Your task to perform on an android device: Search for razer naga on newegg, select the first entry, and add it to the cart. Image 0: 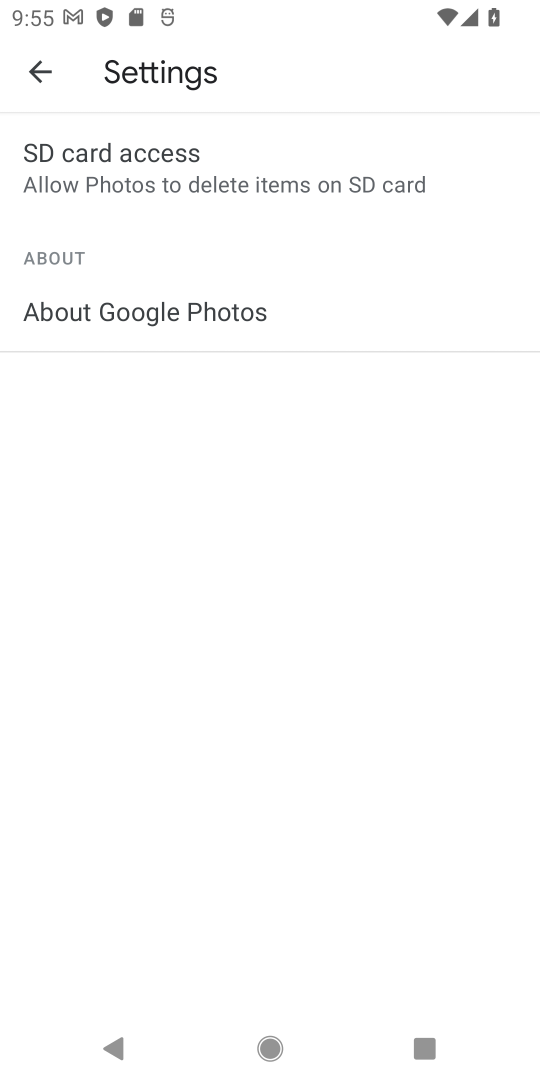
Step 0: press home button
Your task to perform on an android device: Search for razer naga on newegg, select the first entry, and add it to the cart. Image 1: 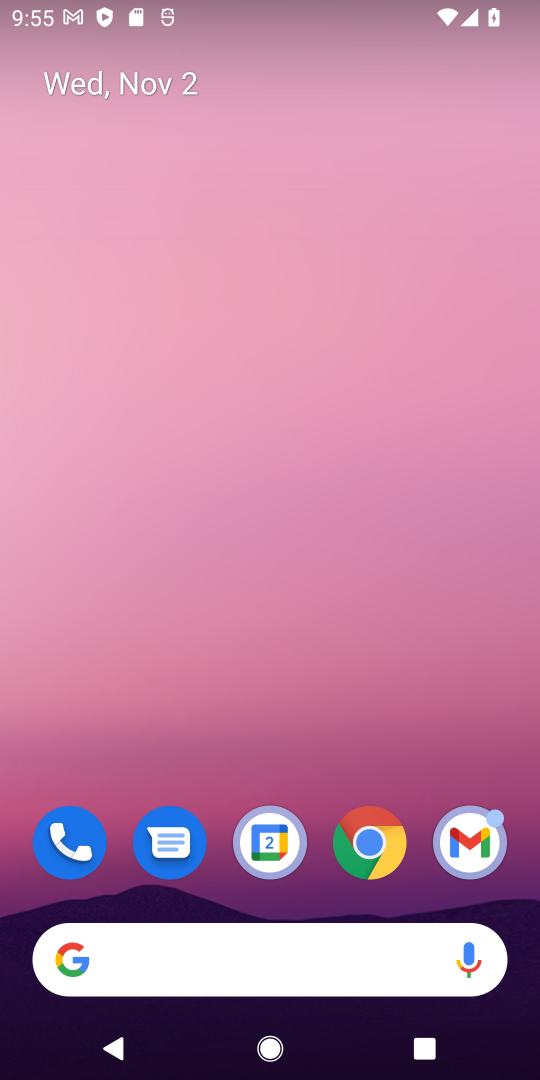
Step 1: drag from (265, 712) to (272, 238)
Your task to perform on an android device: Search for razer naga on newegg, select the first entry, and add it to the cart. Image 2: 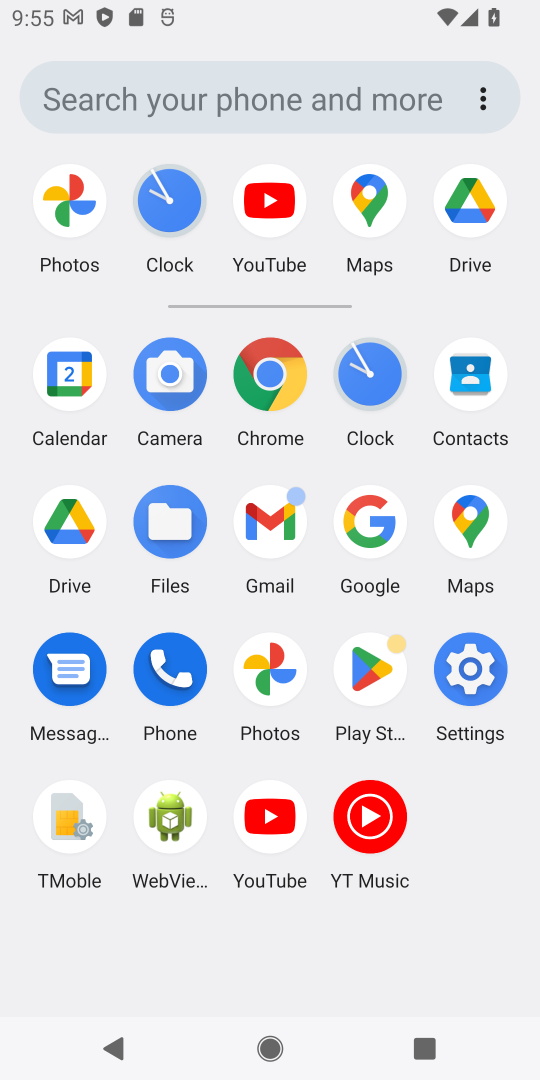
Step 2: click (382, 517)
Your task to perform on an android device: Search for razer naga on newegg, select the first entry, and add it to the cart. Image 3: 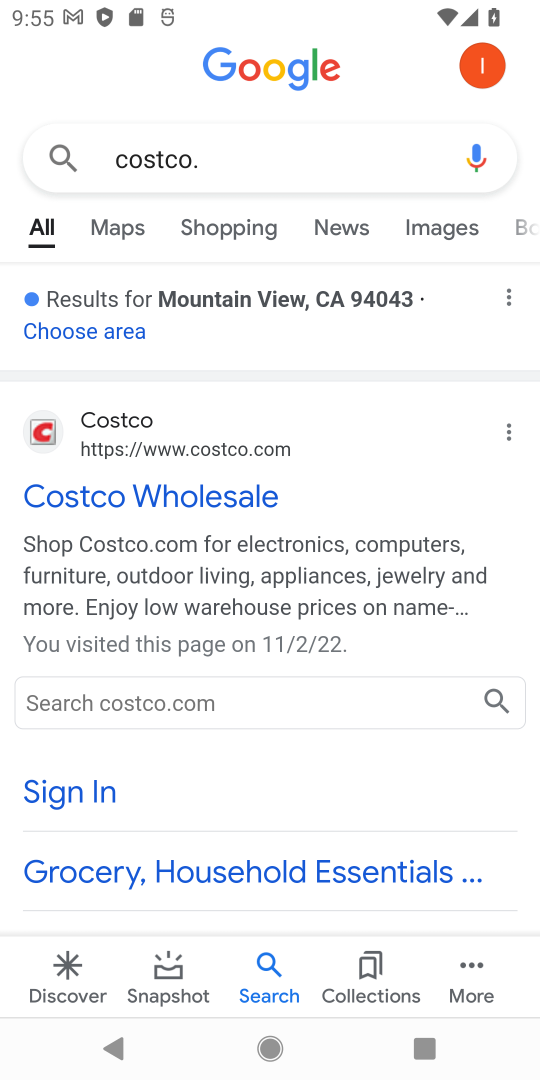
Step 3: click (268, 147)
Your task to perform on an android device: Search for razer naga on newegg, select the first entry, and add it to the cart. Image 4: 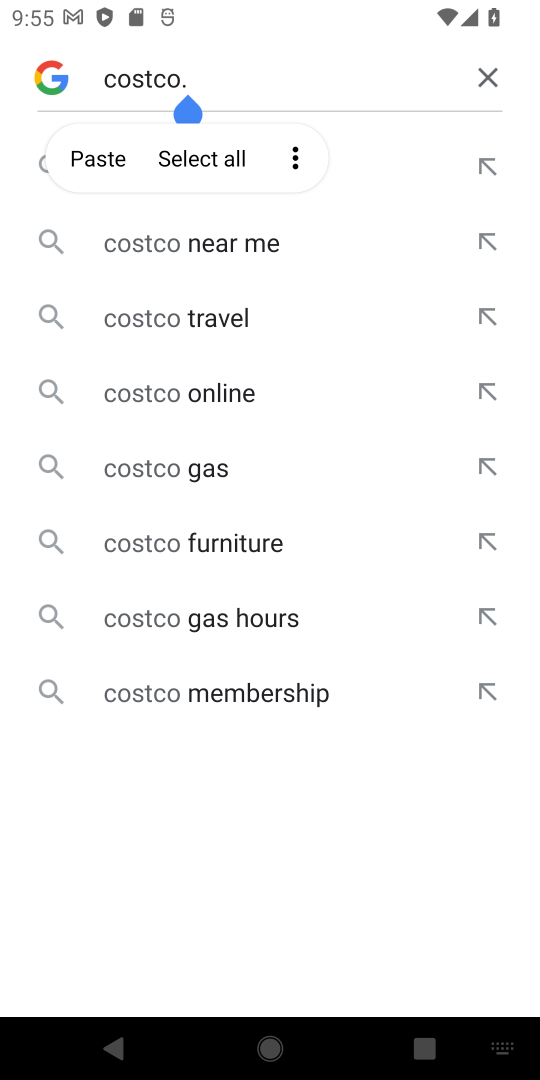
Step 4: click (488, 91)
Your task to perform on an android device: Search for razer naga on newegg, select the first entry, and add it to the cart. Image 5: 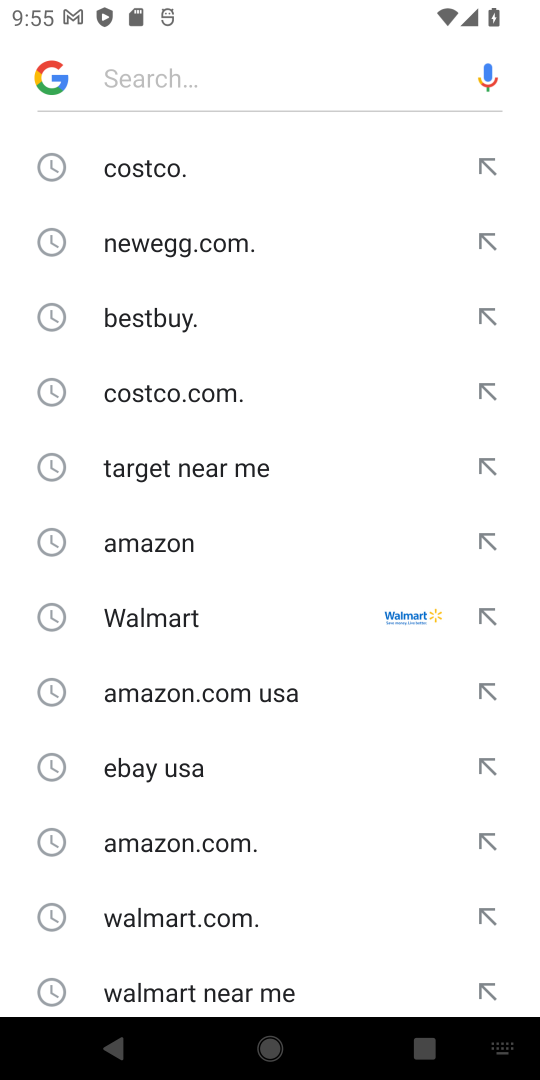
Step 5: click (184, 245)
Your task to perform on an android device: Search for razer naga on newegg, select the first entry, and add it to the cart. Image 6: 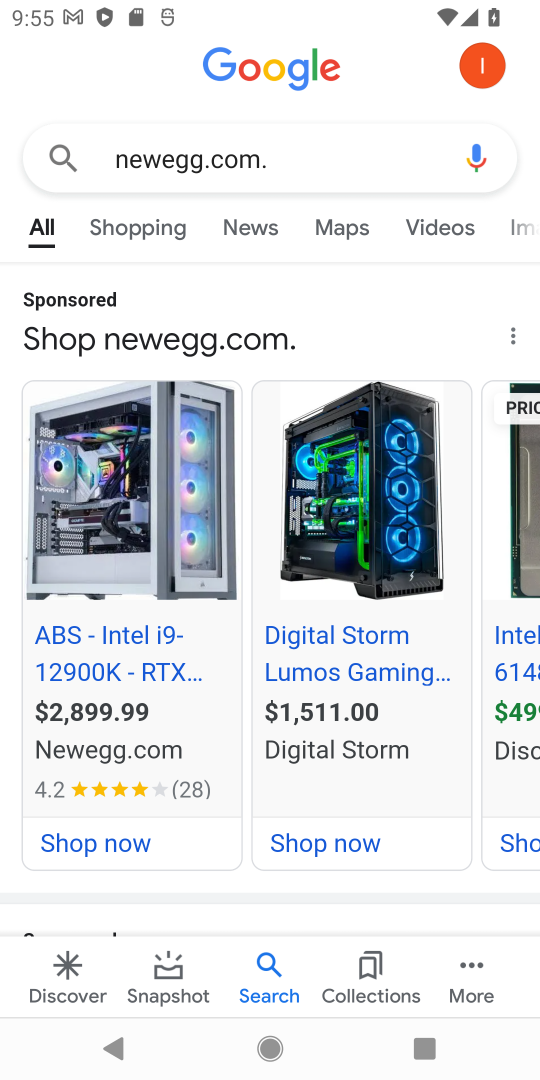
Step 6: drag from (159, 588) to (199, 304)
Your task to perform on an android device: Search for razer naga on newegg, select the first entry, and add it to the cart. Image 7: 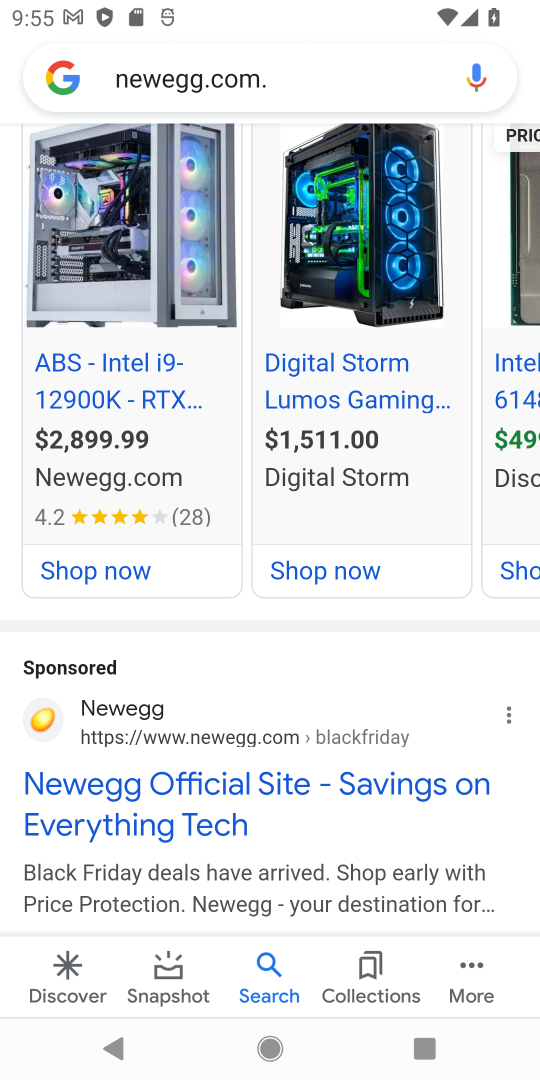
Step 7: click (44, 730)
Your task to perform on an android device: Search for razer naga on newegg, select the first entry, and add it to the cart. Image 8: 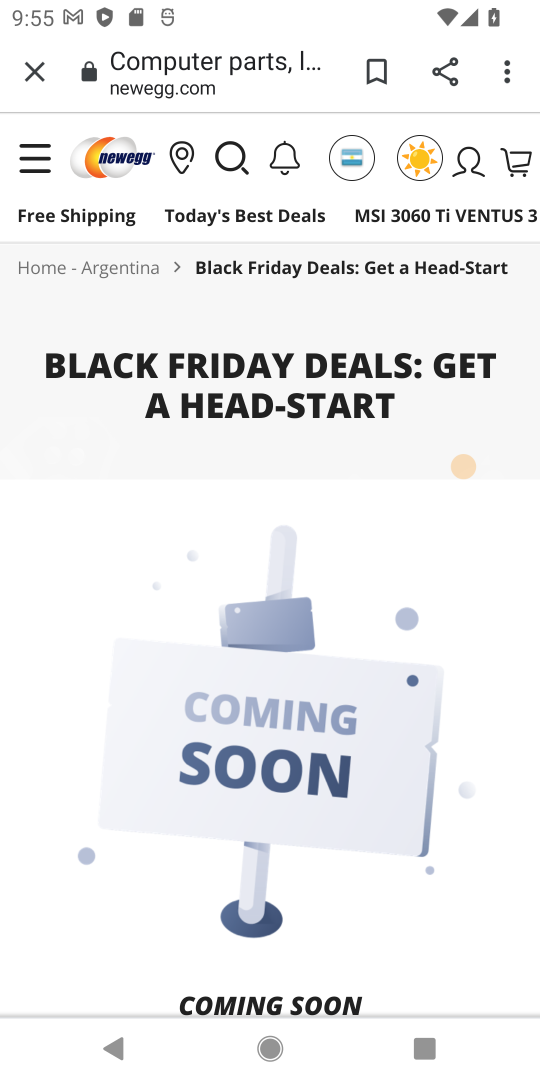
Step 8: click (221, 172)
Your task to perform on an android device: Search for razer naga on newegg, select the first entry, and add it to the cart. Image 9: 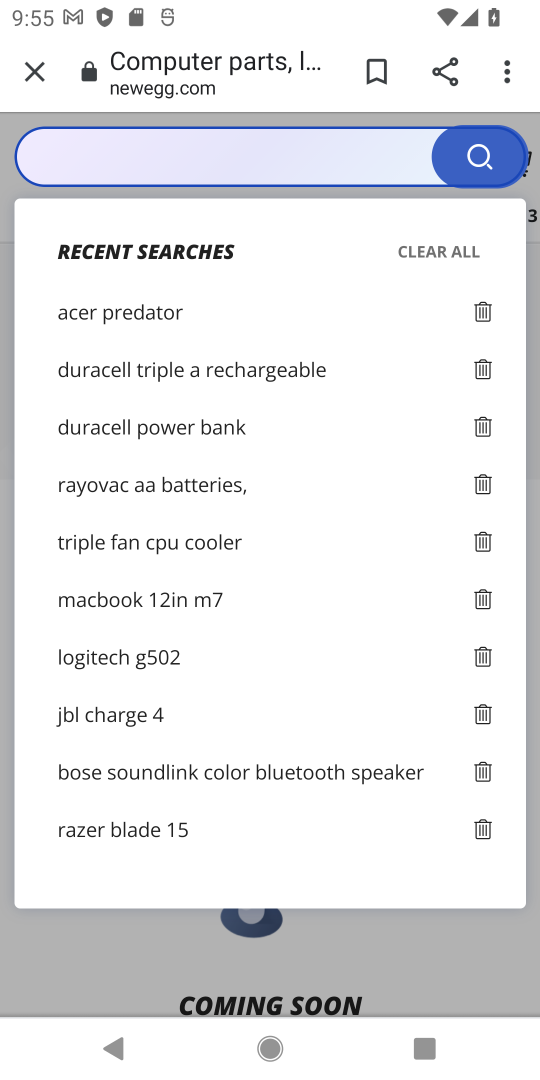
Step 9: click (120, 123)
Your task to perform on an android device: Search for razer naga on newegg, select the first entry, and add it to the cart. Image 10: 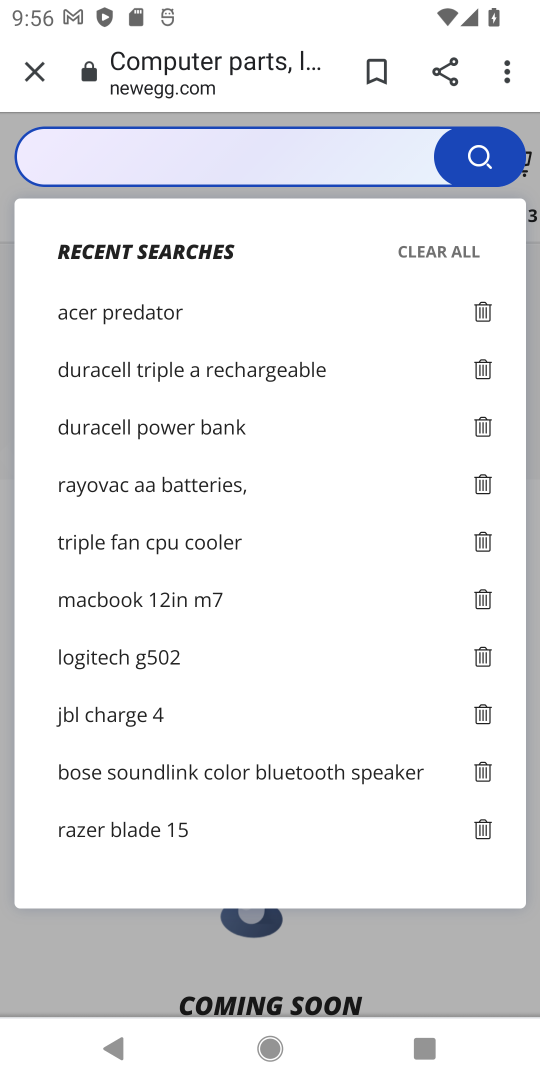
Step 10: click (128, 136)
Your task to perform on an android device: Search for razer naga on newegg, select the first entry, and add it to the cart. Image 11: 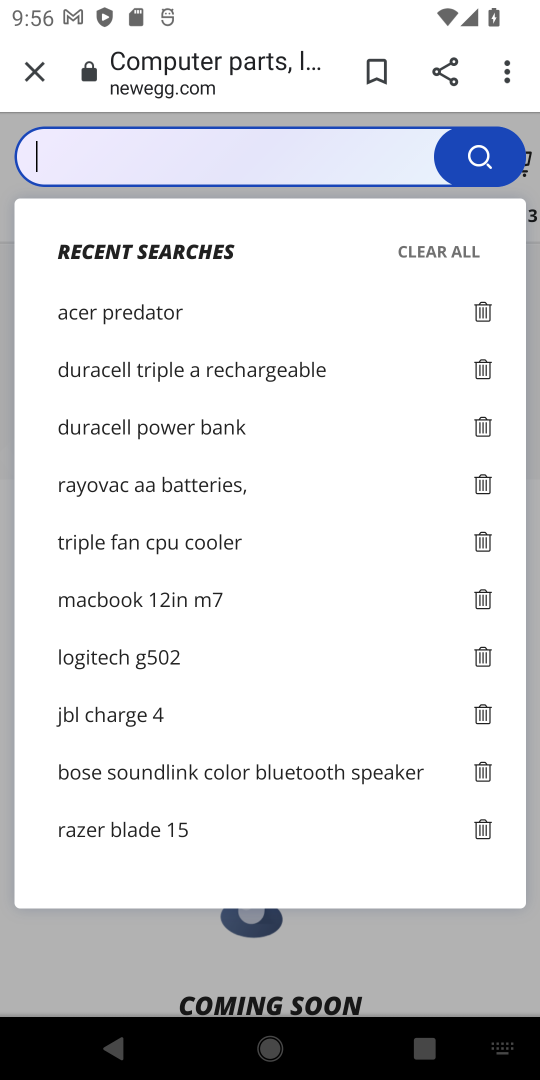
Step 11: type "razer naga "
Your task to perform on an android device: Search for razer naga on newegg, select the first entry, and add it to the cart. Image 12: 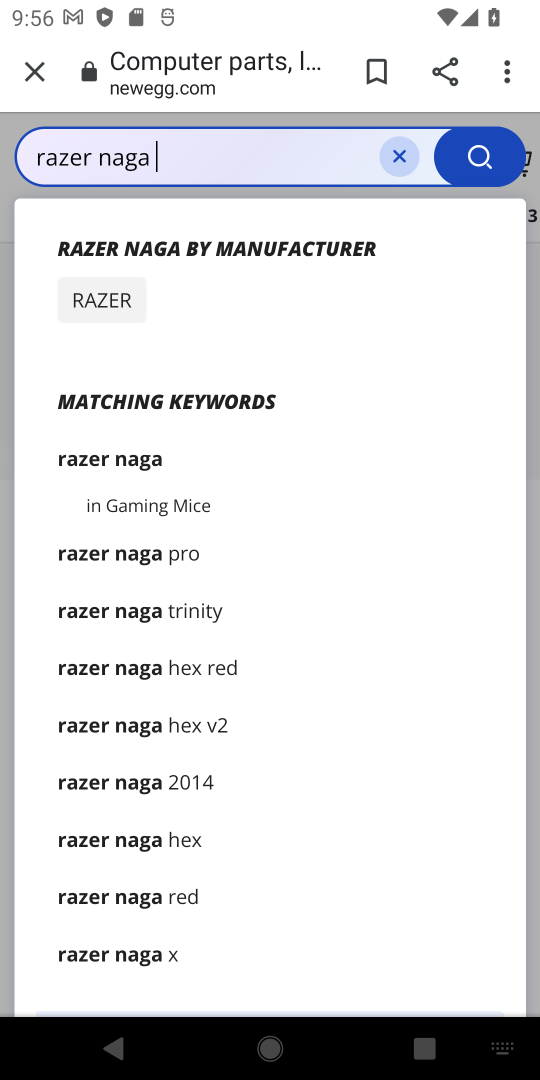
Step 12: click (78, 475)
Your task to perform on an android device: Search for razer naga on newegg, select the first entry, and add it to the cart. Image 13: 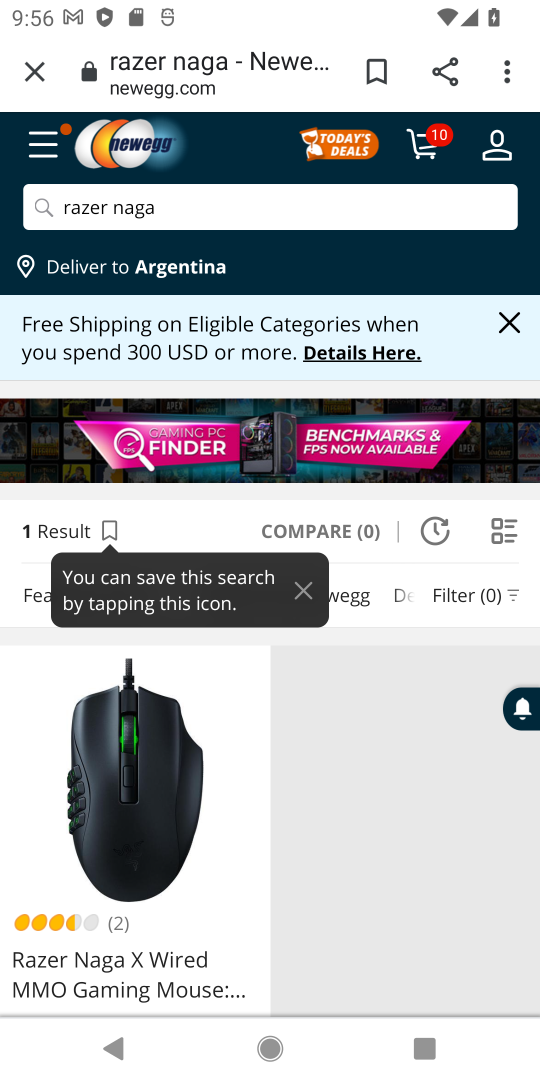
Step 13: drag from (168, 962) to (236, 396)
Your task to perform on an android device: Search for razer naga on newegg, select the first entry, and add it to the cart. Image 14: 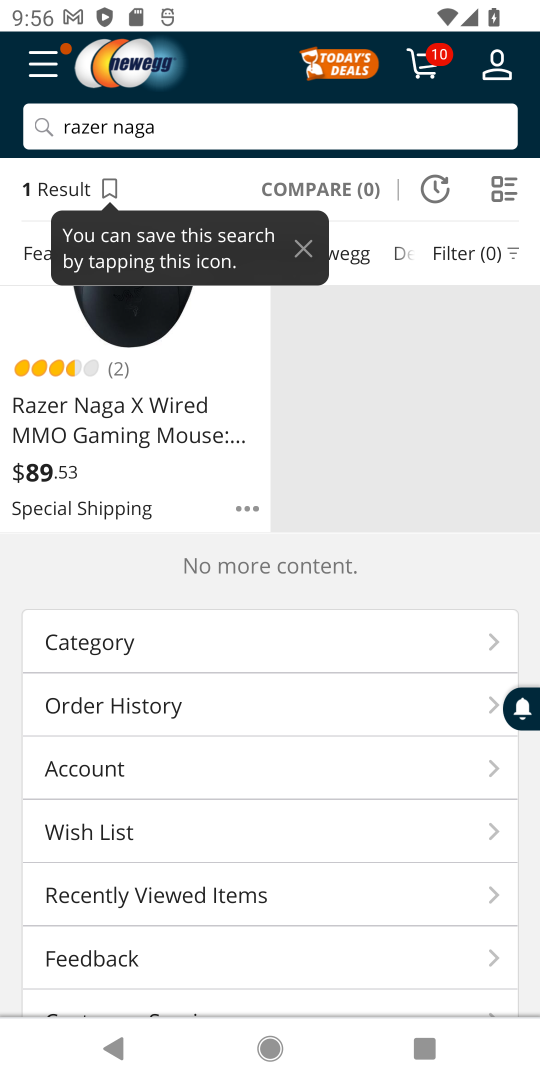
Step 14: click (119, 483)
Your task to perform on an android device: Search for razer naga on newegg, select the first entry, and add it to the cart. Image 15: 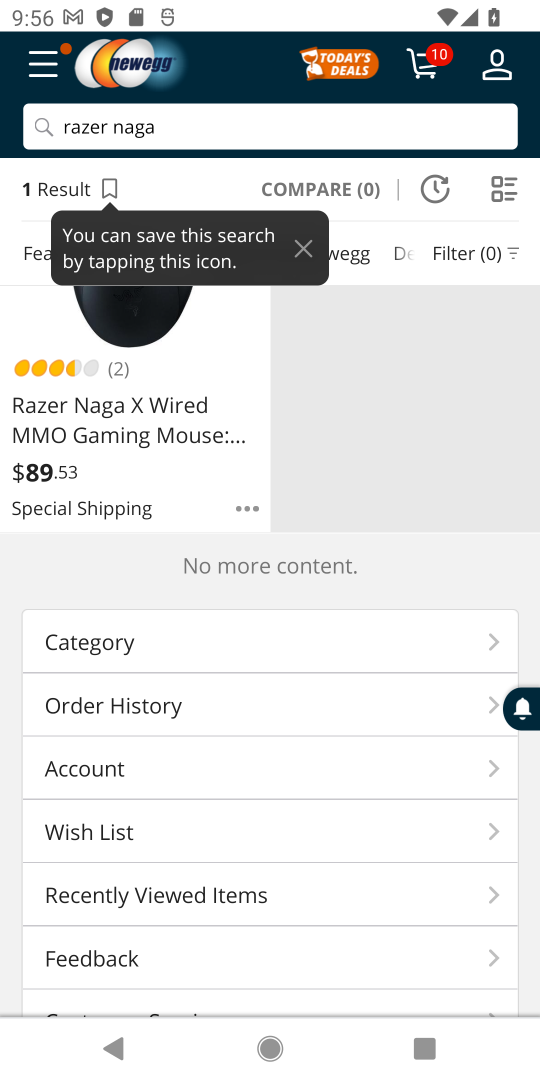
Step 15: click (119, 453)
Your task to perform on an android device: Search for razer naga on newegg, select the first entry, and add it to the cart. Image 16: 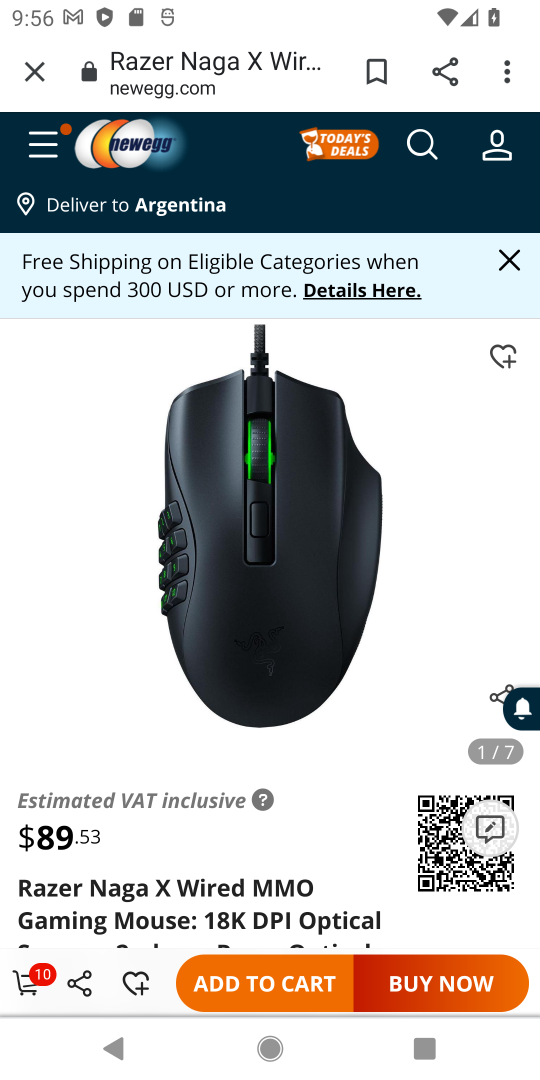
Step 16: click (234, 959)
Your task to perform on an android device: Search for razer naga on newegg, select the first entry, and add it to the cart. Image 17: 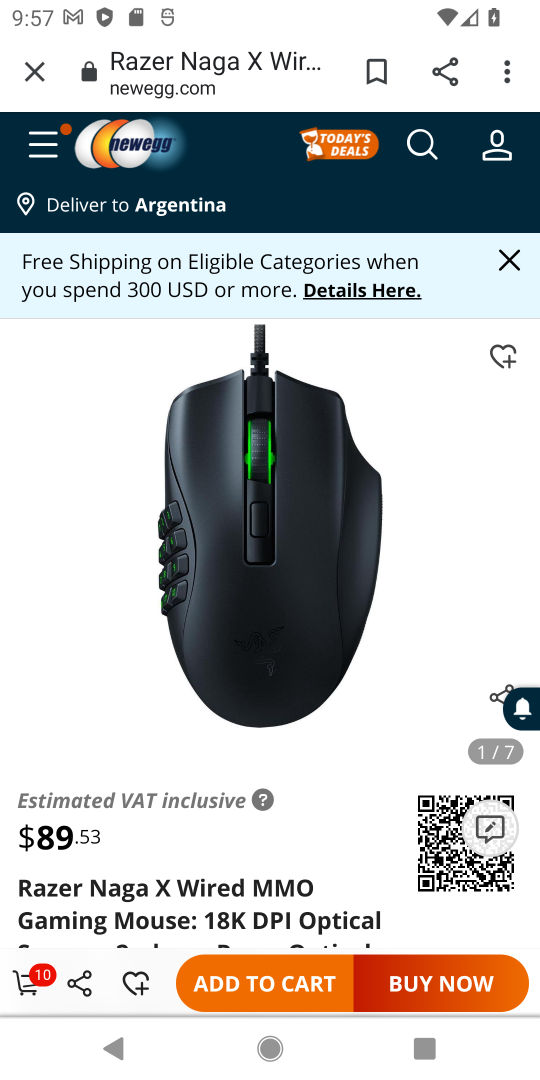
Step 17: click (234, 972)
Your task to perform on an android device: Search for razer naga on newegg, select the first entry, and add it to the cart. Image 18: 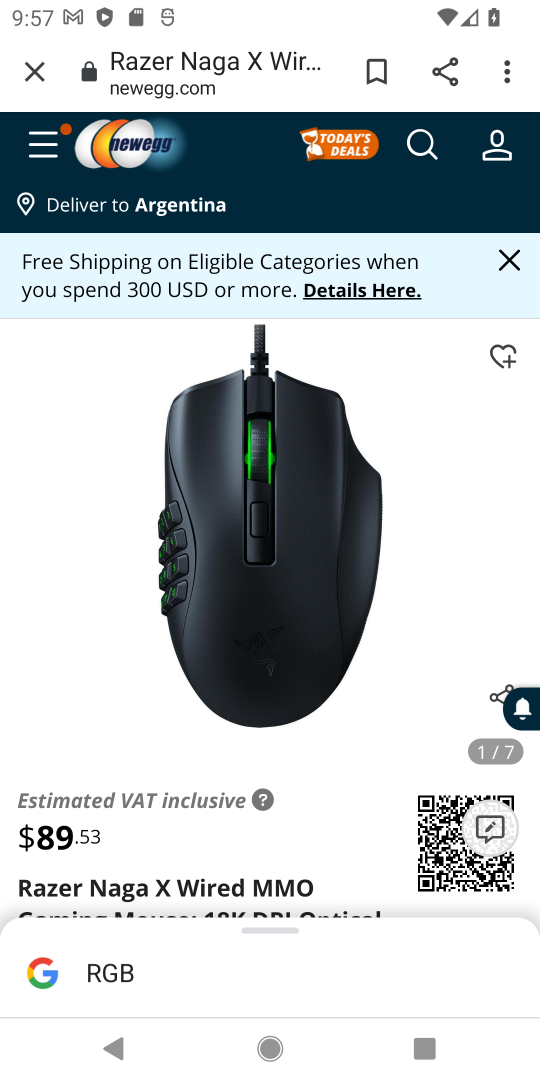
Step 18: task complete